Your task to perform on an android device: Search for pizza restaurants on Maps Image 0: 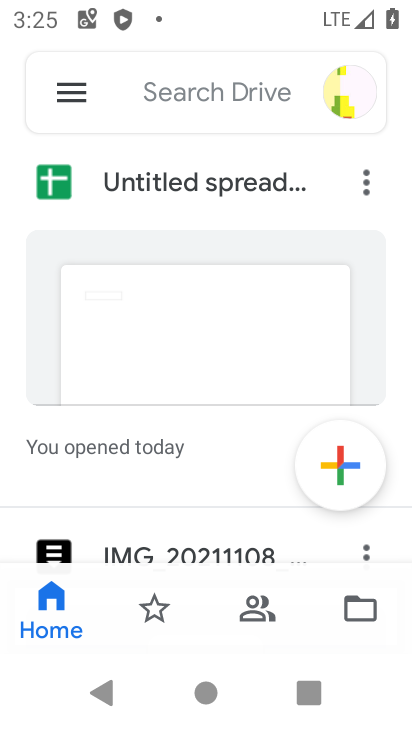
Step 0: press home button
Your task to perform on an android device: Search for pizza restaurants on Maps Image 1: 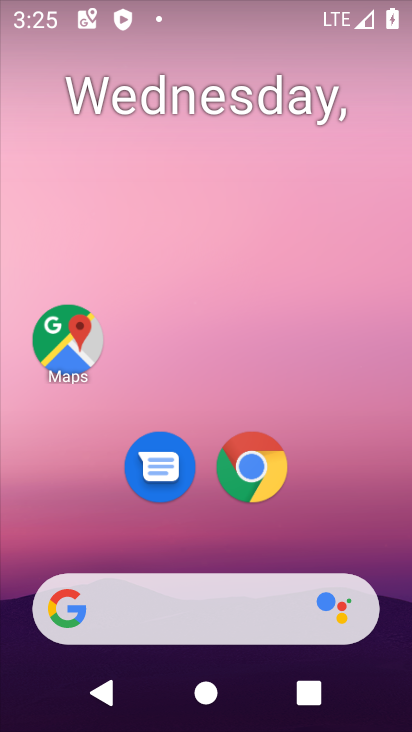
Step 1: click (65, 335)
Your task to perform on an android device: Search for pizza restaurants on Maps Image 2: 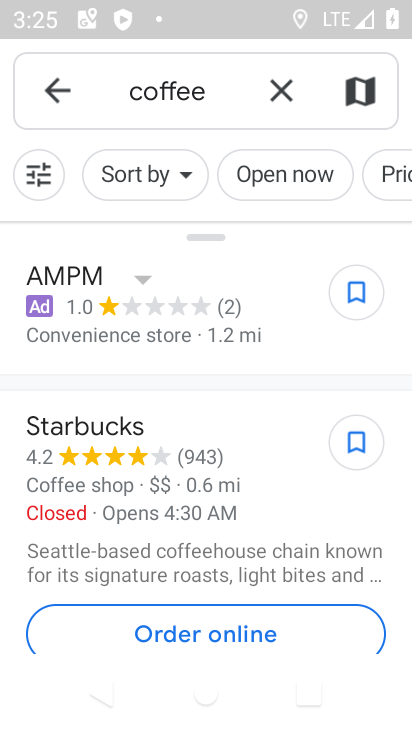
Step 2: click (279, 83)
Your task to perform on an android device: Search for pizza restaurants on Maps Image 3: 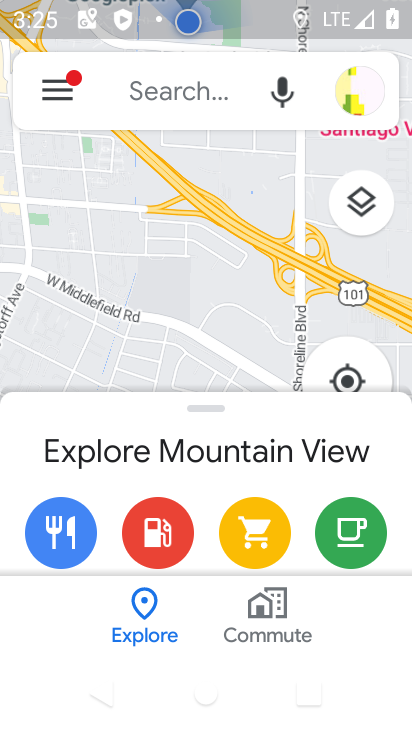
Step 3: click (148, 91)
Your task to perform on an android device: Search for pizza restaurants on Maps Image 4: 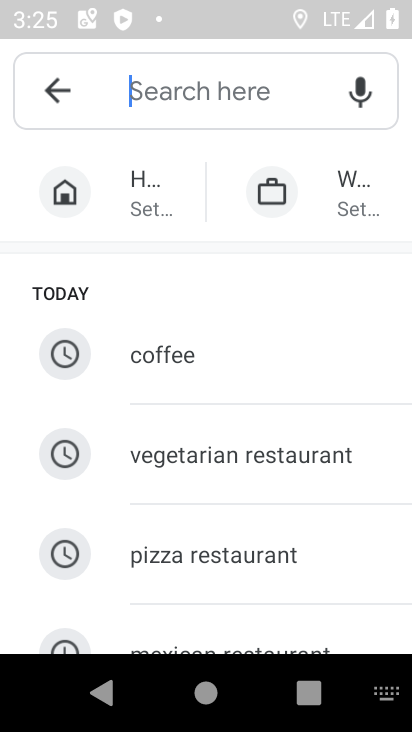
Step 4: type "pizza restaurants"
Your task to perform on an android device: Search for pizza restaurants on Maps Image 5: 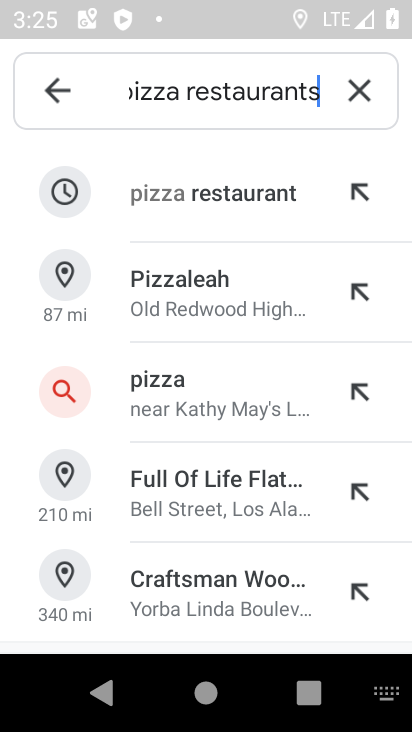
Step 5: click (214, 196)
Your task to perform on an android device: Search for pizza restaurants on Maps Image 6: 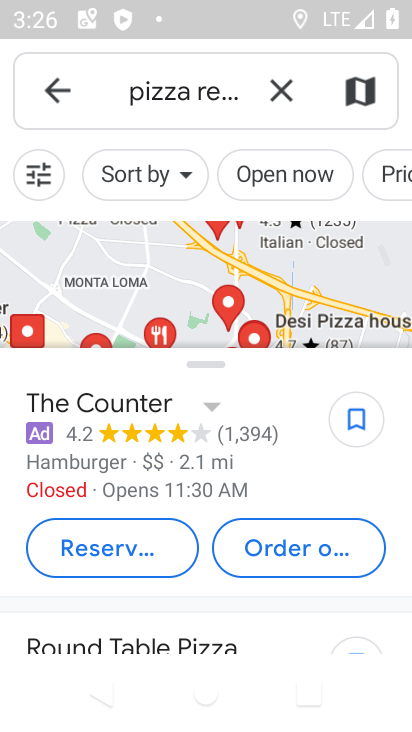
Step 6: task complete